Your task to perform on an android device: open app "Google Keep" (install if not already installed) Image 0: 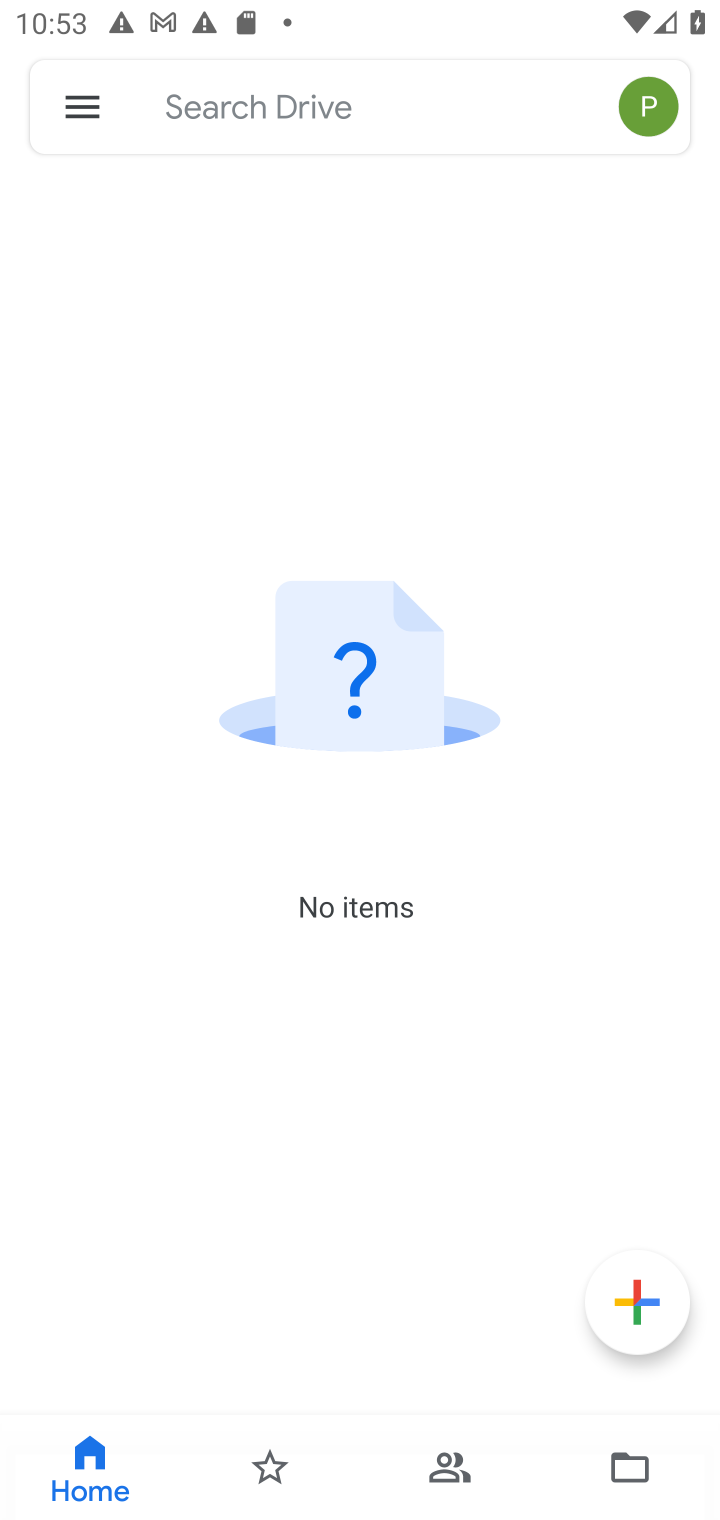
Step 0: press home button
Your task to perform on an android device: open app "Google Keep" (install if not already installed) Image 1: 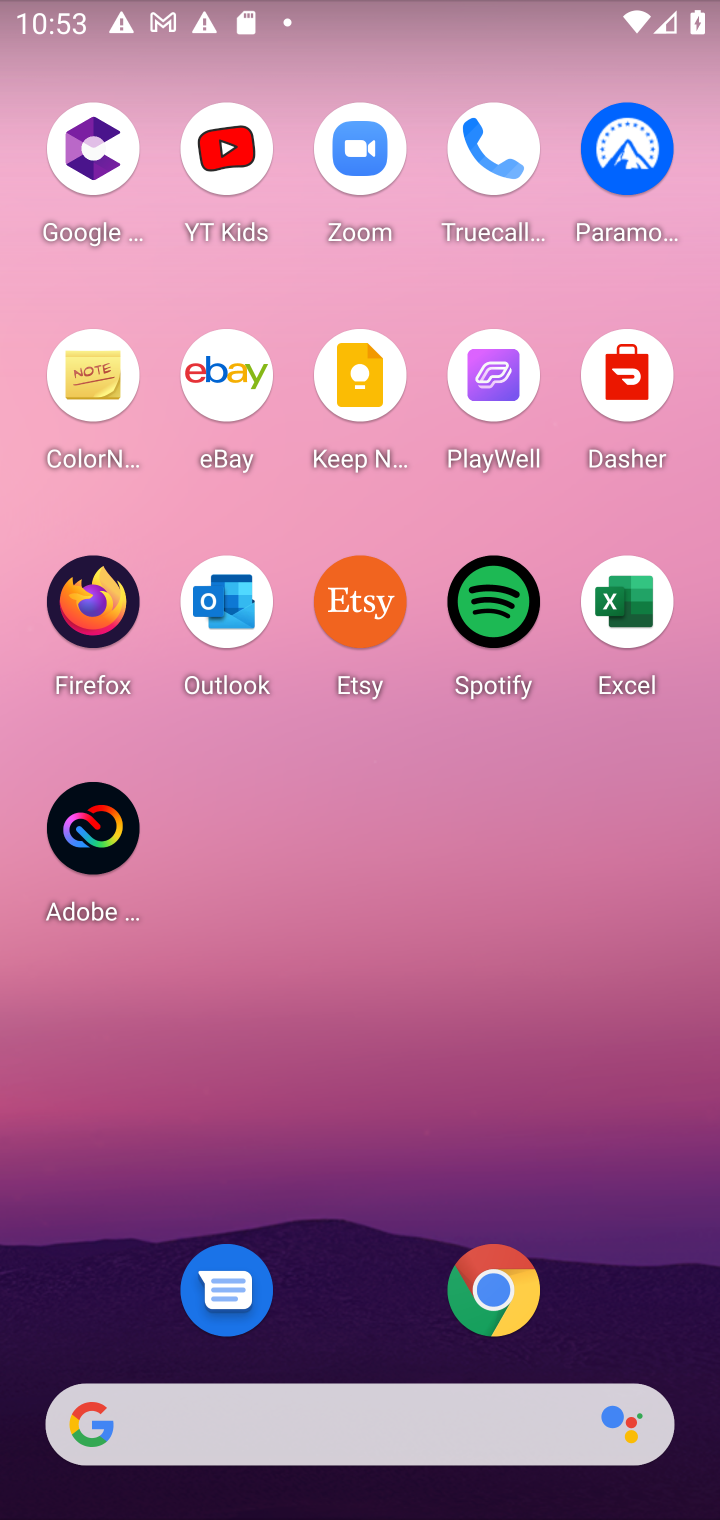
Step 1: press home button
Your task to perform on an android device: open app "Google Keep" (install if not already installed) Image 2: 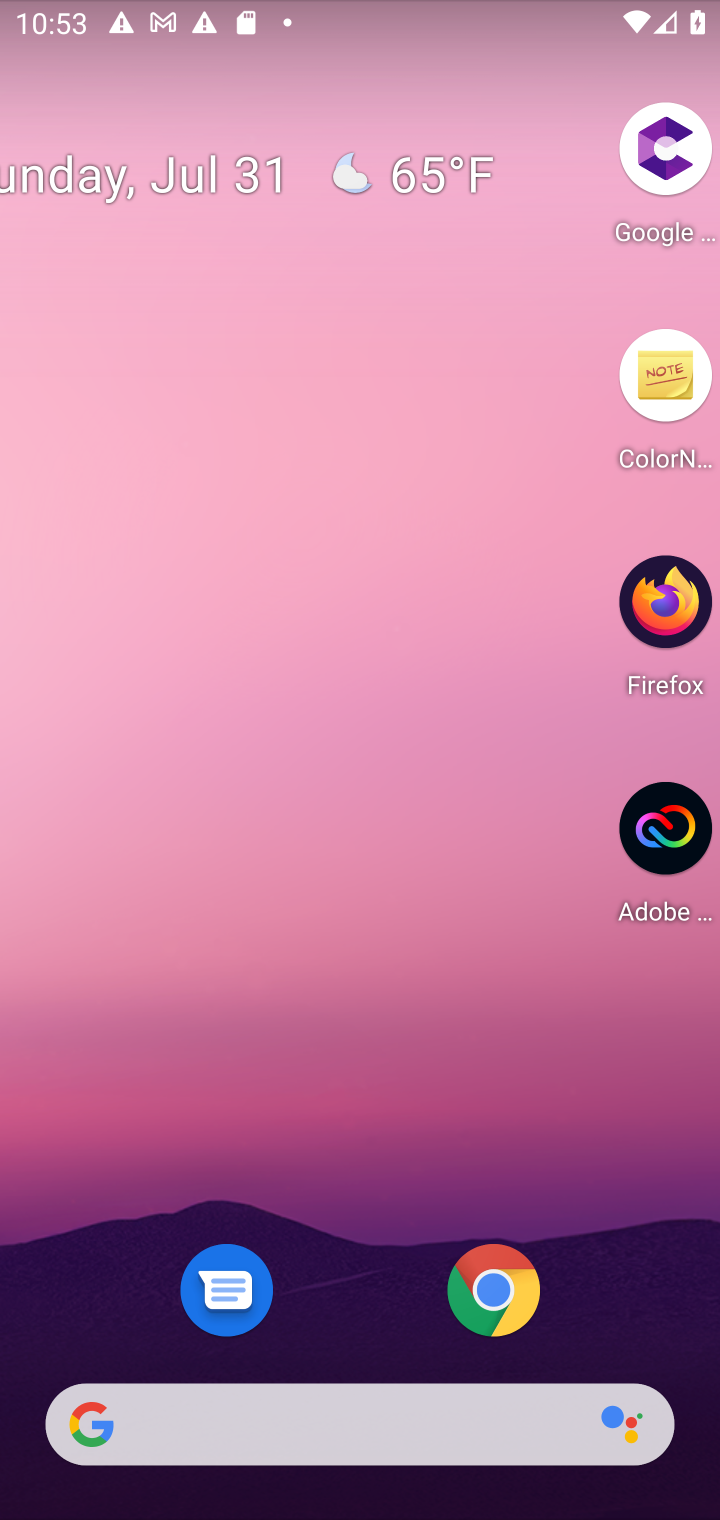
Step 2: drag from (620, 1307) to (630, 130)
Your task to perform on an android device: open app "Google Keep" (install if not already installed) Image 3: 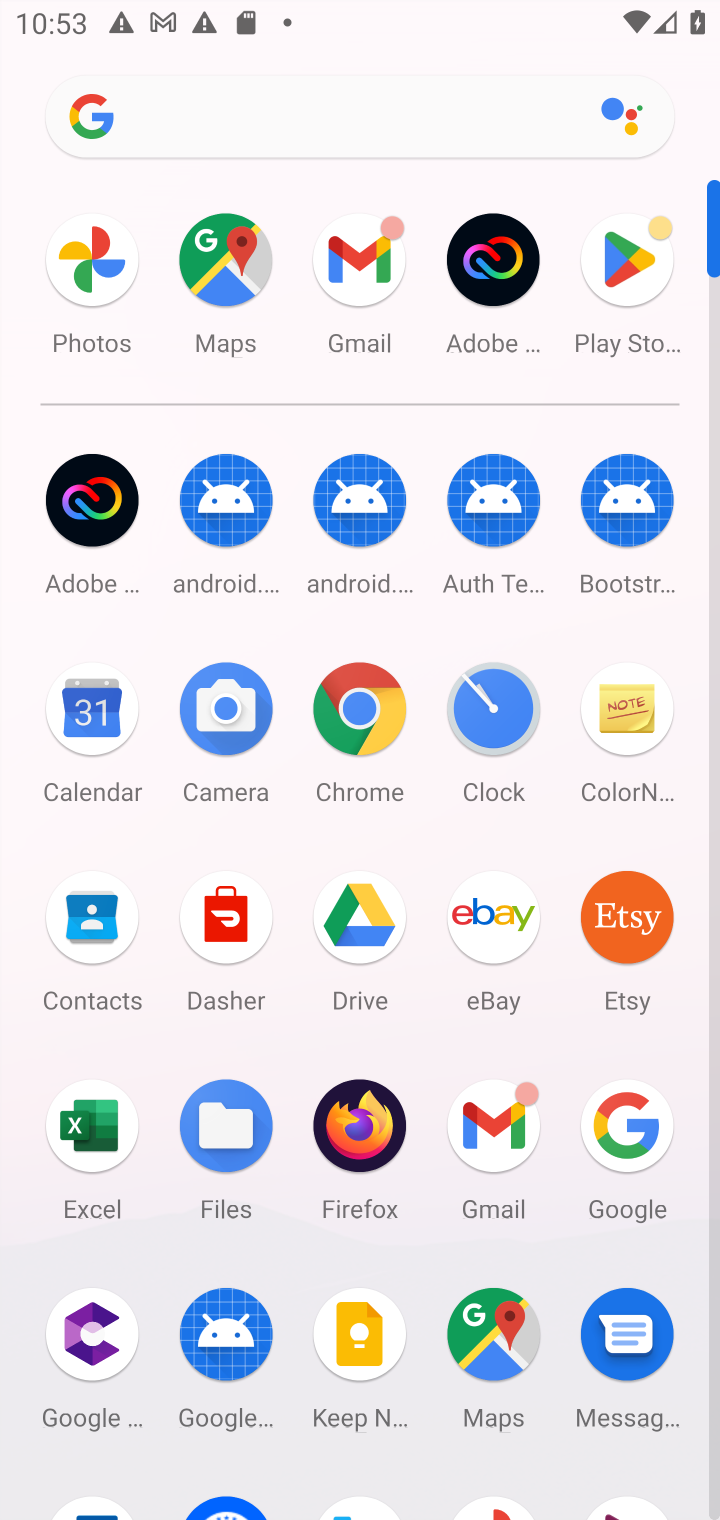
Step 3: click (643, 258)
Your task to perform on an android device: open app "Google Keep" (install if not already installed) Image 4: 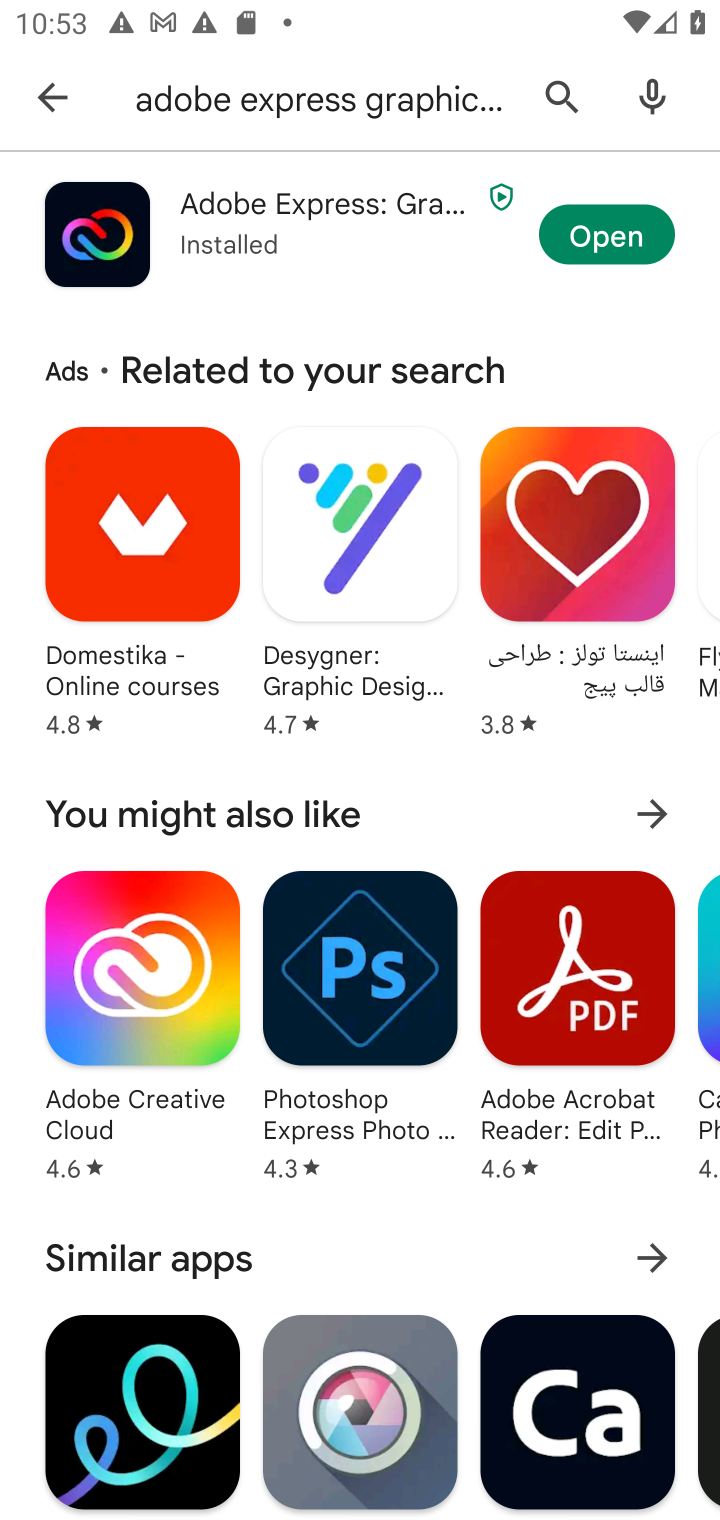
Step 4: click (556, 87)
Your task to perform on an android device: open app "Google Keep" (install if not already installed) Image 5: 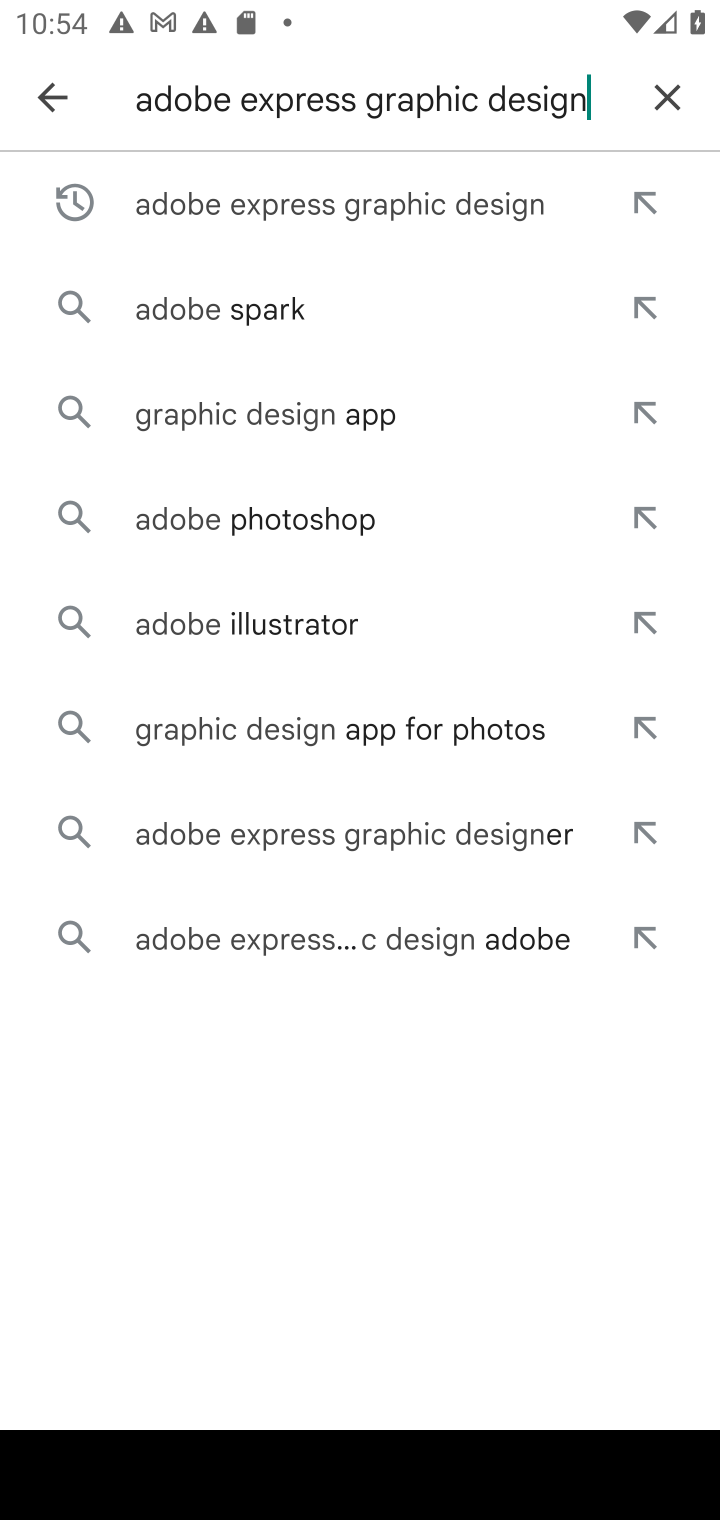
Step 5: click (664, 96)
Your task to perform on an android device: open app "Google Keep" (install if not already installed) Image 6: 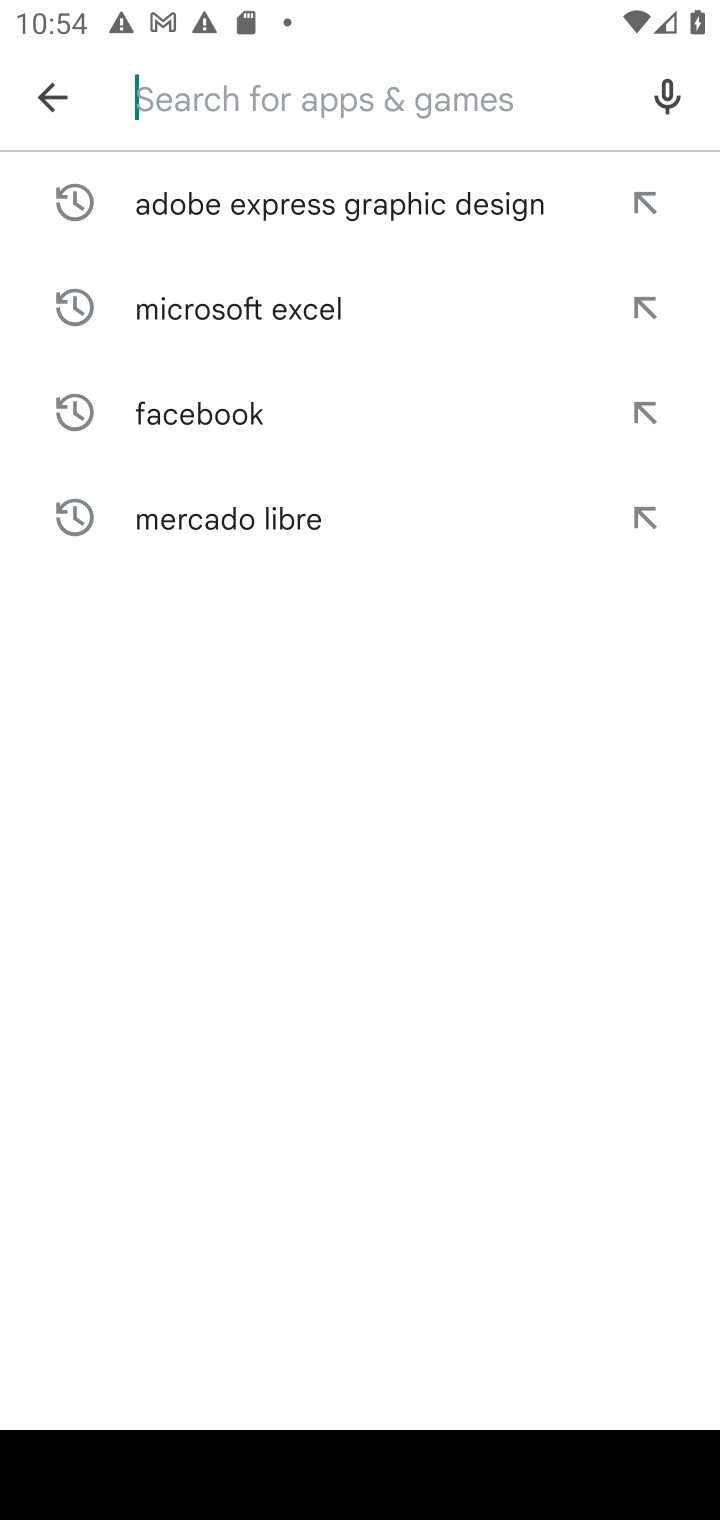
Step 6: type "google keep "
Your task to perform on an android device: open app "Google Keep" (install if not already installed) Image 7: 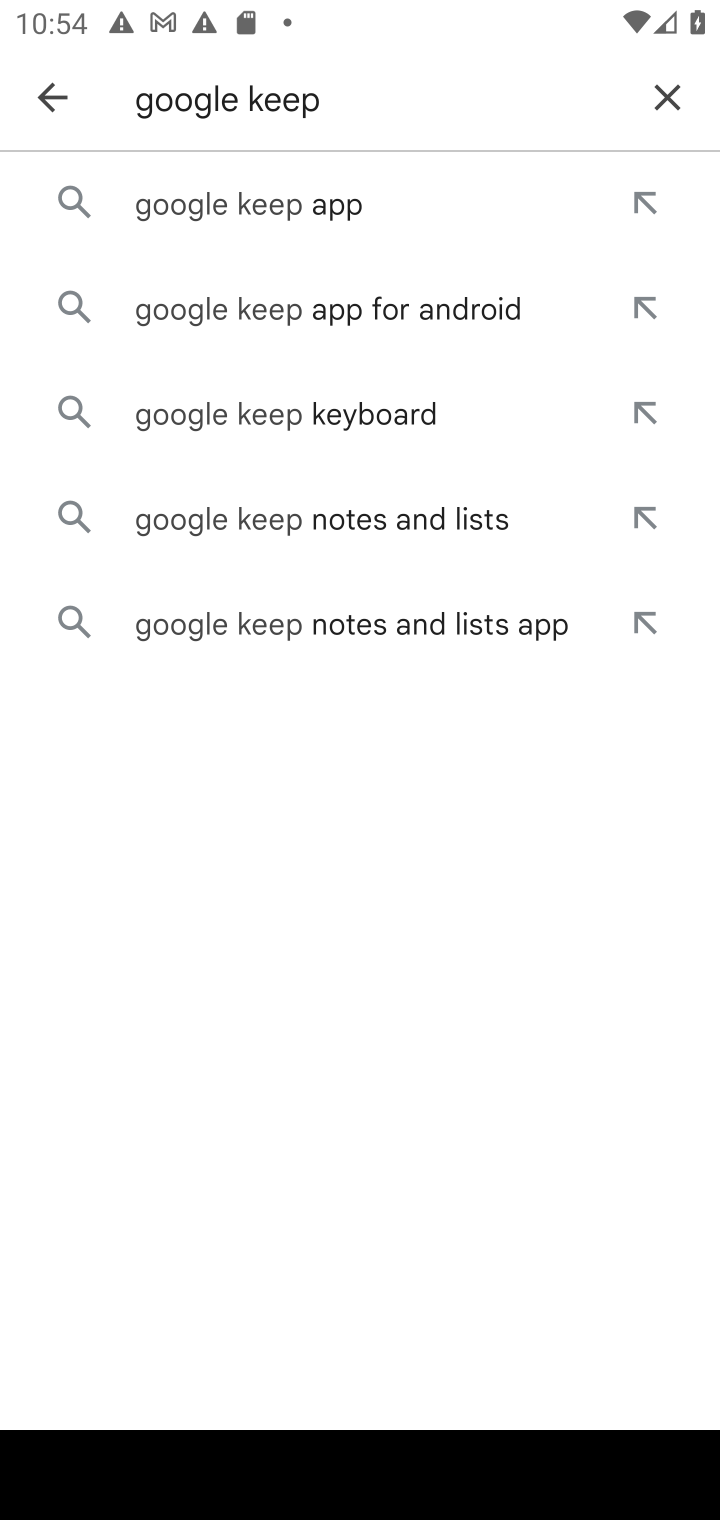
Step 7: click (285, 210)
Your task to perform on an android device: open app "Google Keep" (install if not already installed) Image 8: 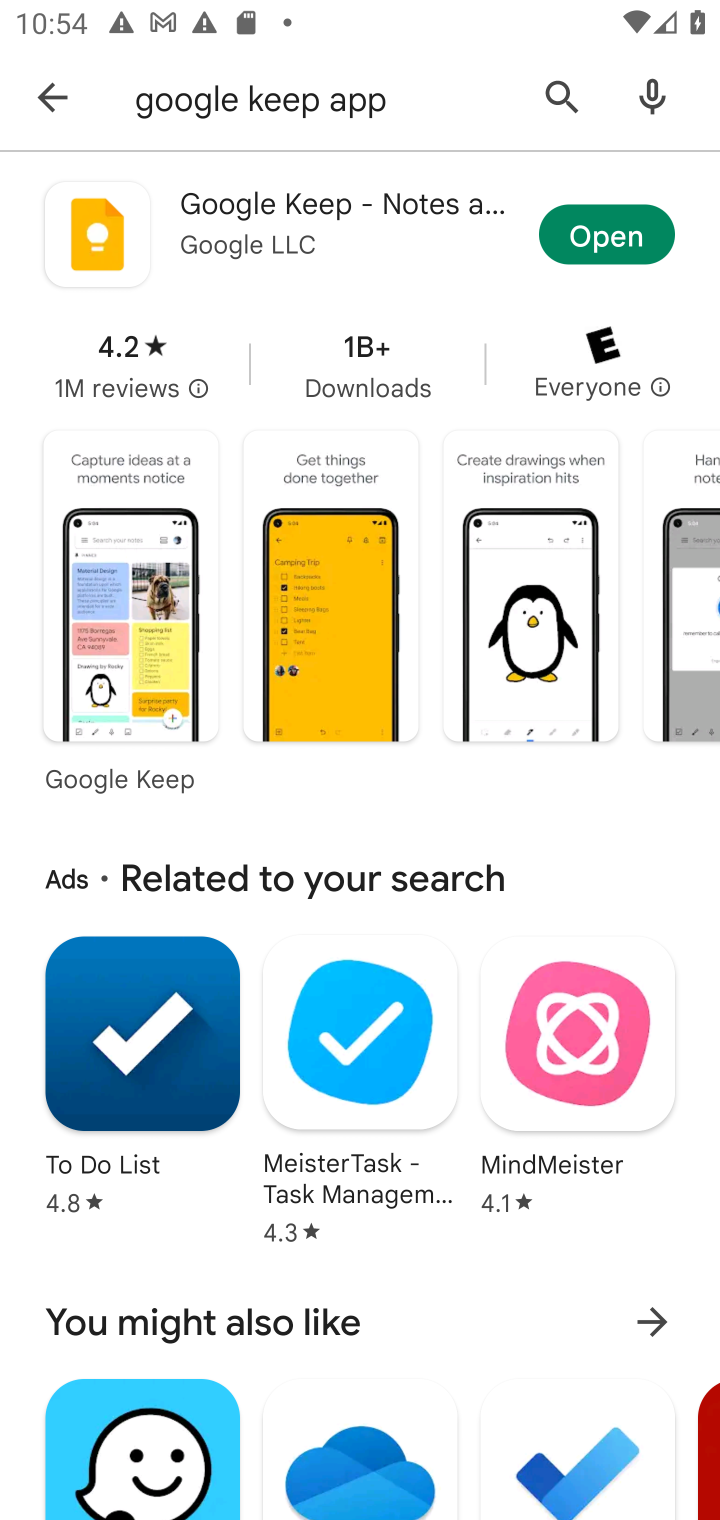
Step 8: click (607, 233)
Your task to perform on an android device: open app "Google Keep" (install if not already installed) Image 9: 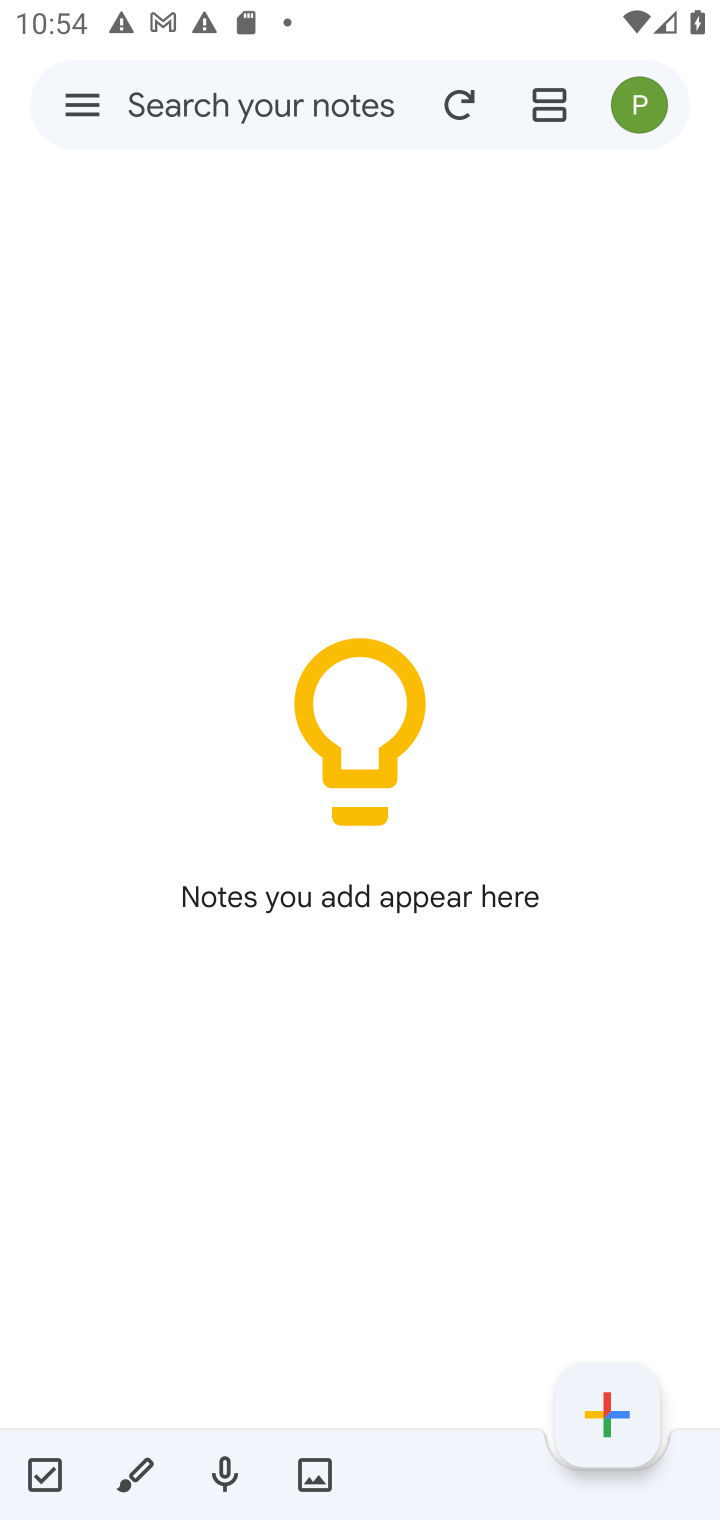
Step 9: task complete